Your task to perform on an android device: Open calendar and show me the third week of next month Image 0: 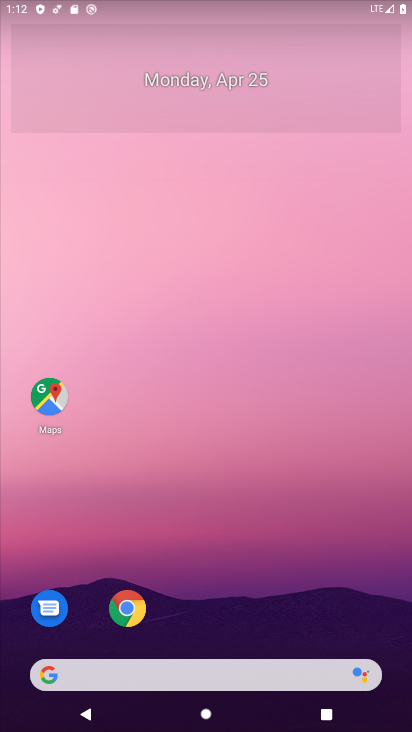
Step 0: drag from (265, 415) to (249, 138)
Your task to perform on an android device: Open calendar and show me the third week of next month Image 1: 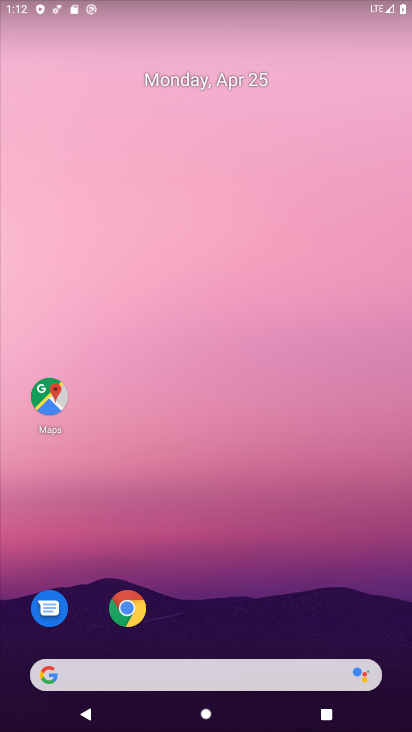
Step 1: drag from (292, 635) to (284, 175)
Your task to perform on an android device: Open calendar and show me the third week of next month Image 2: 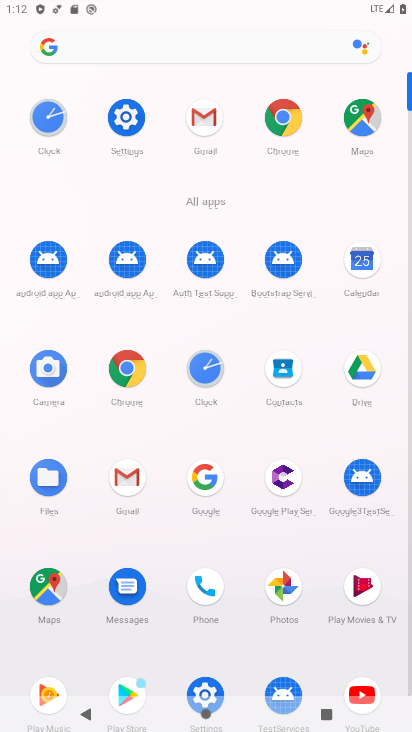
Step 2: click (358, 266)
Your task to perform on an android device: Open calendar and show me the third week of next month Image 3: 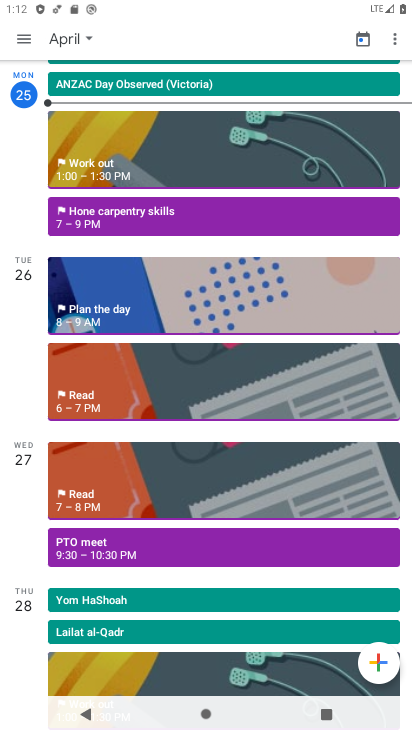
Step 3: click (72, 36)
Your task to perform on an android device: Open calendar and show me the third week of next month Image 4: 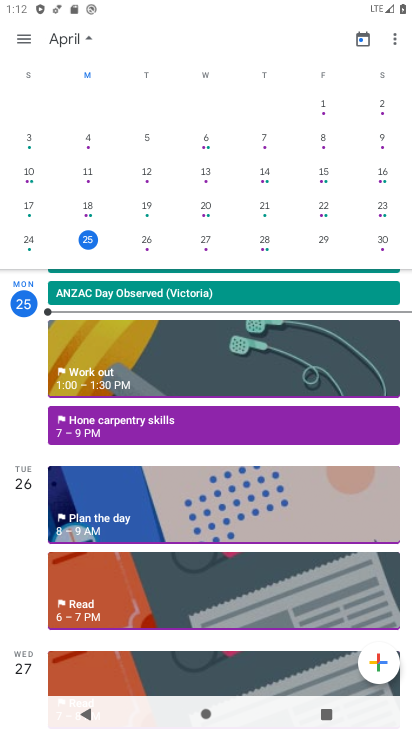
Step 4: drag from (388, 192) to (2, 172)
Your task to perform on an android device: Open calendar and show me the third week of next month Image 5: 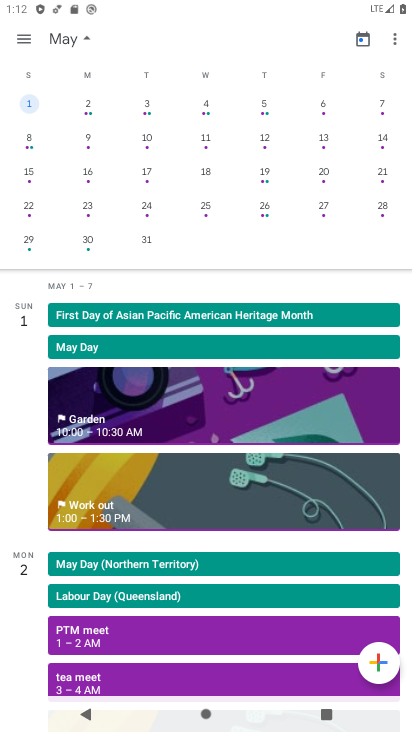
Step 5: click (21, 39)
Your task to perform on an android device: Open calendar and show me the third week of next month Image 6: 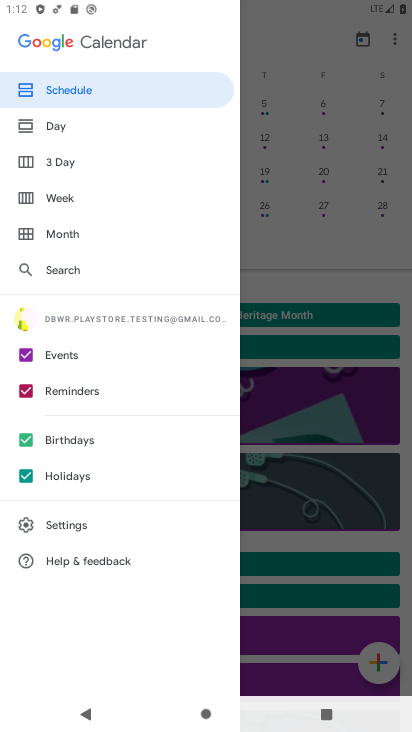
Step 6: click (122, 194)
Your task to perform on an android device: Open calendar and show me the third week of next month Image 7: 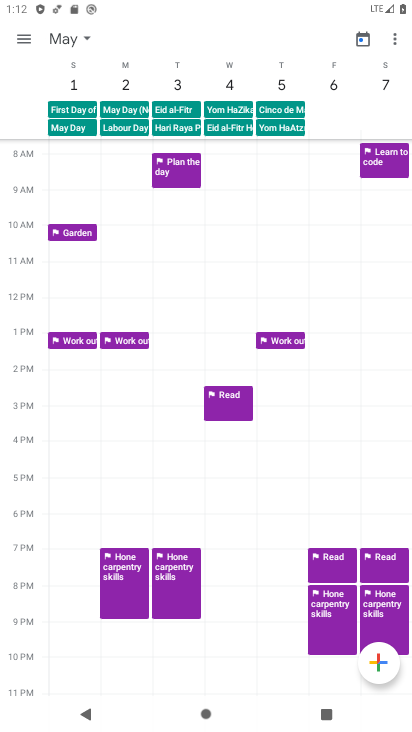
Step 7: task complete